Your task to perform on an android device: Go to notification settings Image 0: 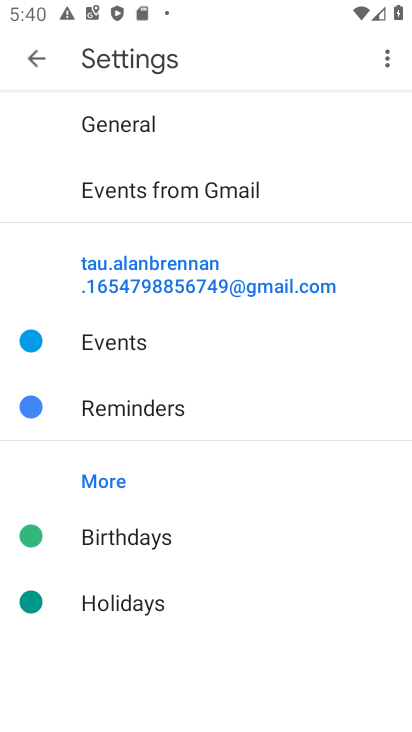
Step 0: press back button
Your task to perform on an android device: Go to notification settings Image 1: 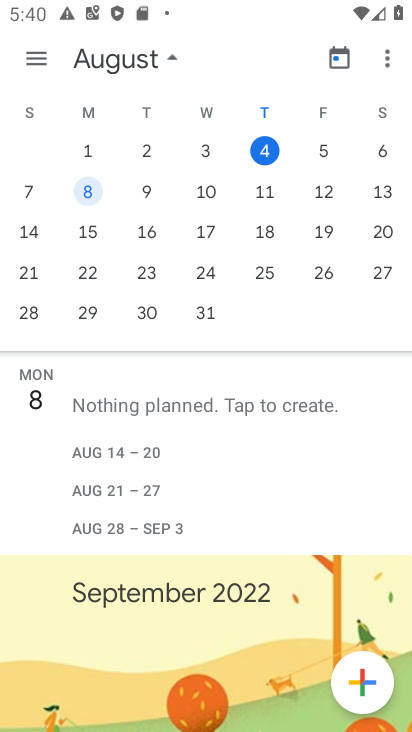
Step 1: press back button
Your task to perform on an android device: Go to notification settings Image 2: 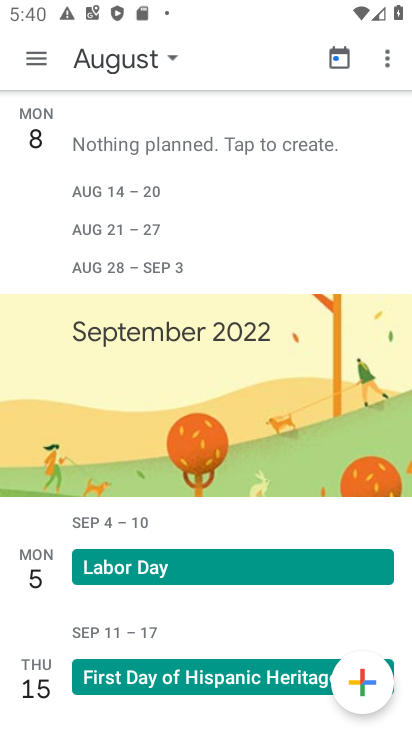
Step 2: press back button
Your task to perform on an android device: Go to notification settings Image 3: 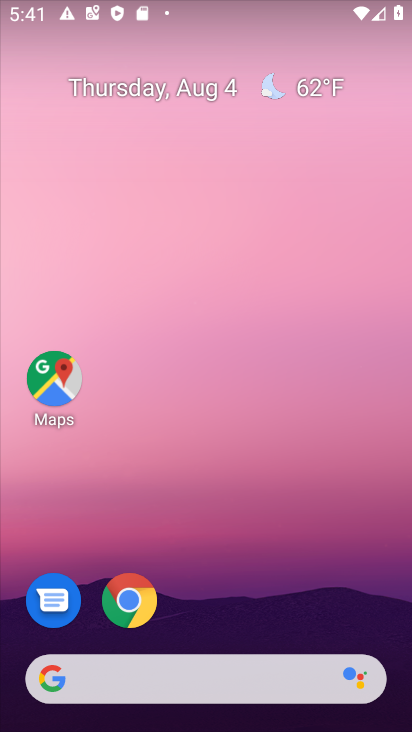
Step 3: drag from (220, 614) to (289, 218)
Your task to perform on an android device: Go to notification settings Image 4: 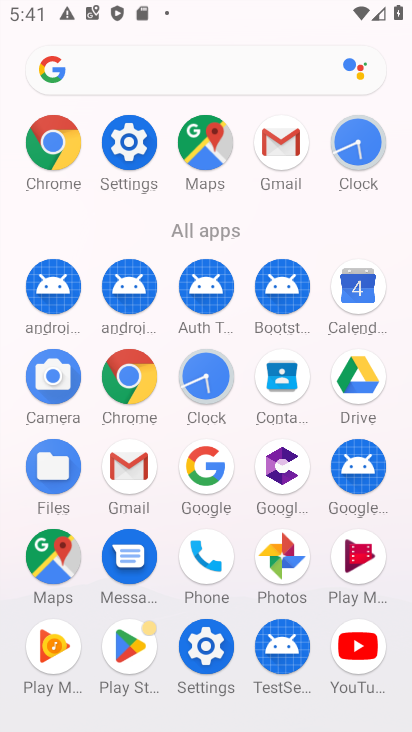
Step 4: click (130, 144)
Your task to perform on an android device: Go to notification settings Image 5: 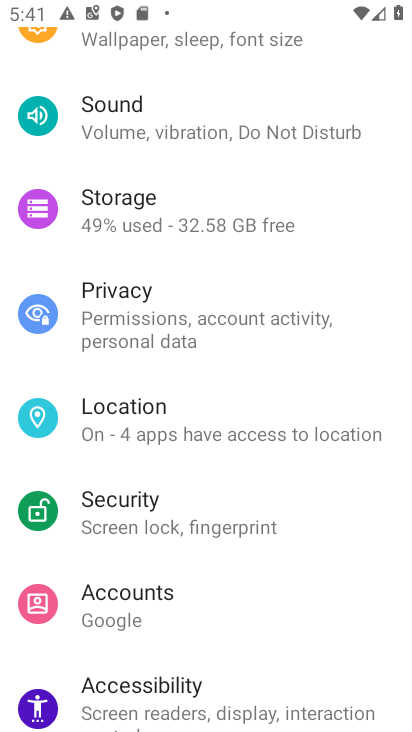
Step 5: drag from (151, 195) to (159, 729)
Your task to perform on an android device: Go to notification settings Image 6: 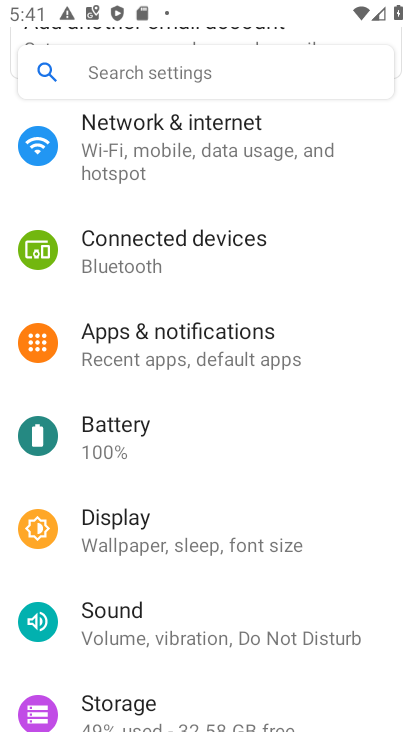
Step 6: click (256, 350)
Your task to perform on an android device: Go to notification settings Image 7: 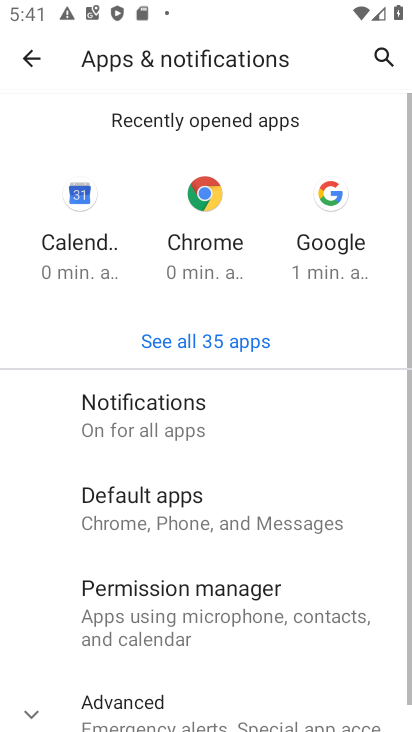
Step 7: task complete